Your task to perform on an android device: toggle location history Image 0: 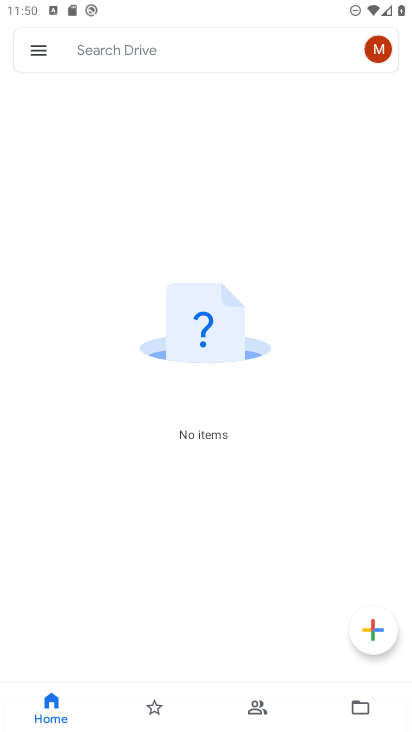
Step 0: press home button
Your task to perform on an android device: toggle location history Image 1: 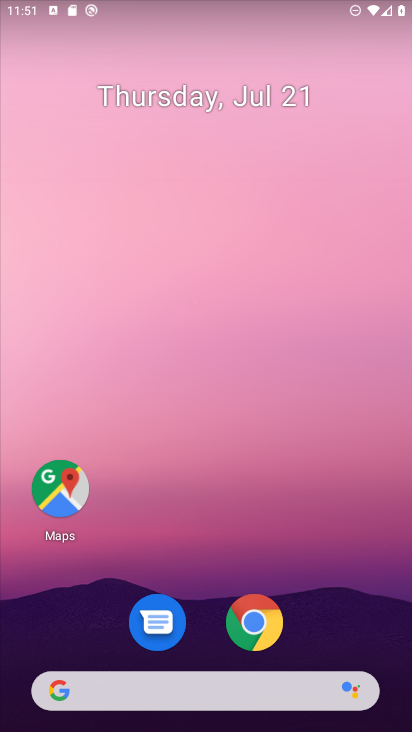
Step 1: drag from (84, 713) to (172, 259)
Your task to perform on an android device: toggle location history Image 2: 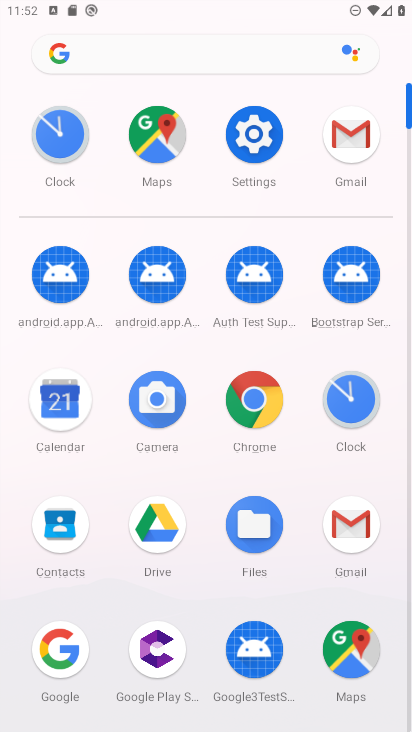
Step 2: click (159, 133)
Your task to perform on an android device: toggle location history Image 3: 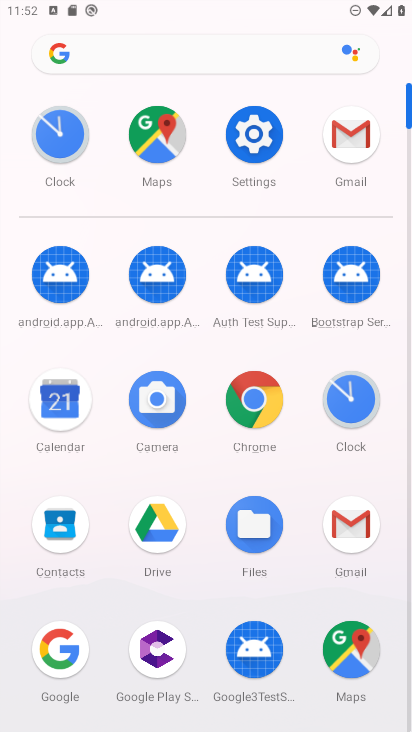
Step 3: click (159, 133)
Your task to perform on an android device: toggle location history Image 4: 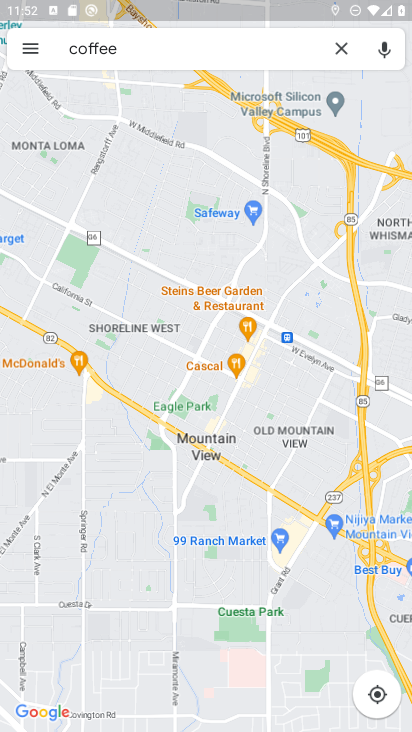
Step 4: click (25, 52)
Your task to perform on an android device: toggle location history Image 5: 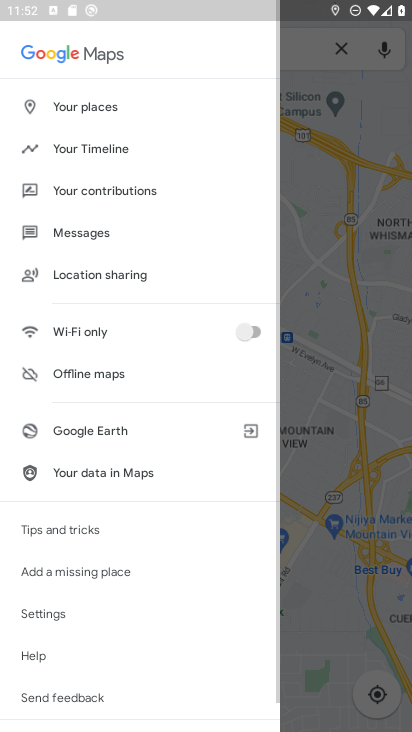
Step 5: click (68, 151)
Your task to perform on an android device: toggle location history Image 6: 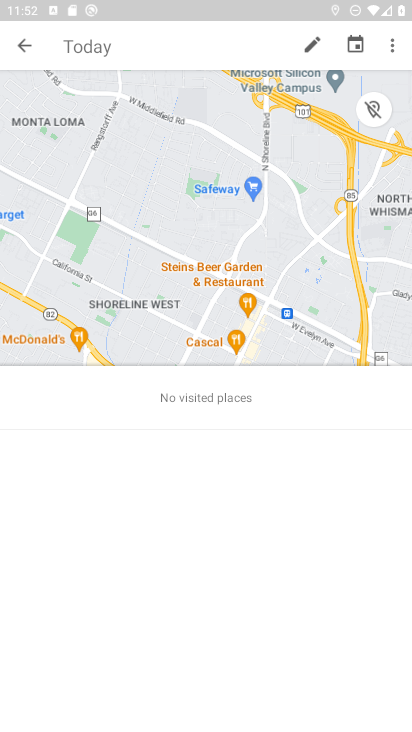
Step 6: click (390, 42)
Your task to perform on an android device: toggle location history Image 7: 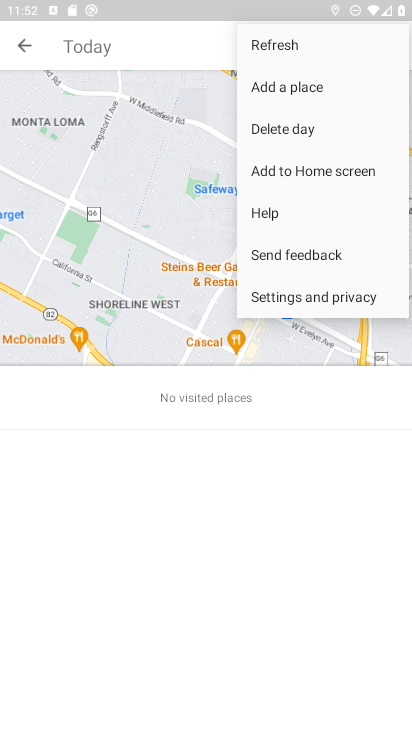
Step 7: click (320, 302)
Your task to perform on an android device: toggle location history Image 8: 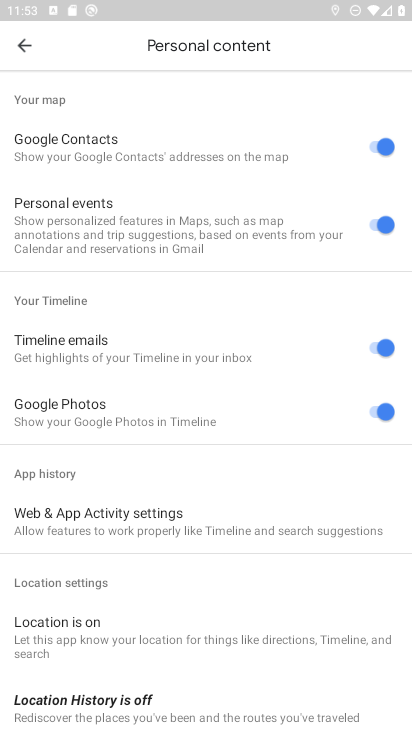
Step 8: drag from (181, 667) to (231, 107)
Your task to perform on an android device: toggle location history Image 9: 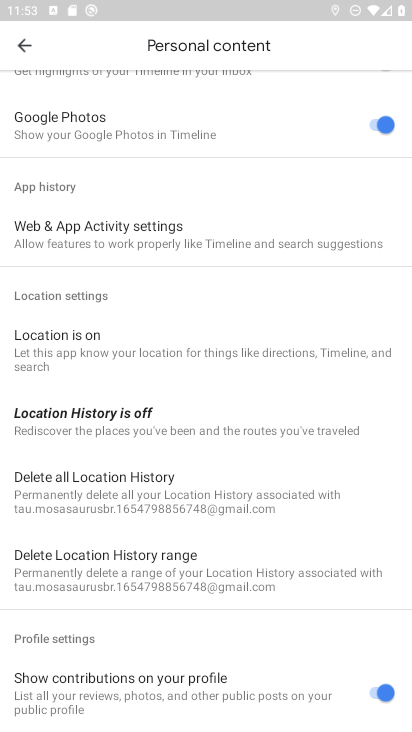
Step 9: click (231, 434)
Your task to perform on an android device: toggle location history Image 10: 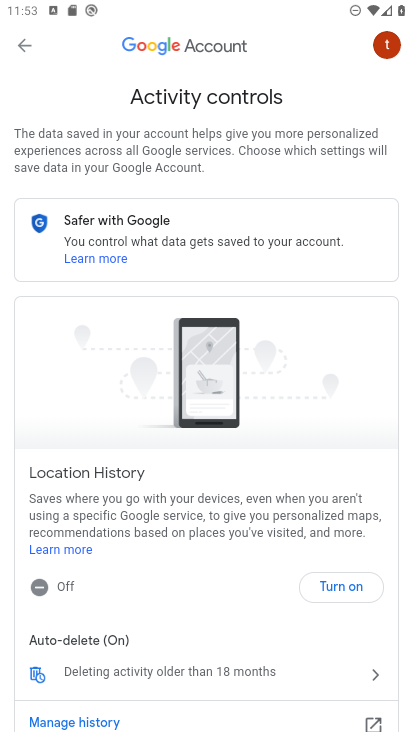
Step 10: click (334, 577)
Your task to perform on an android device: toggle location history Image 11: 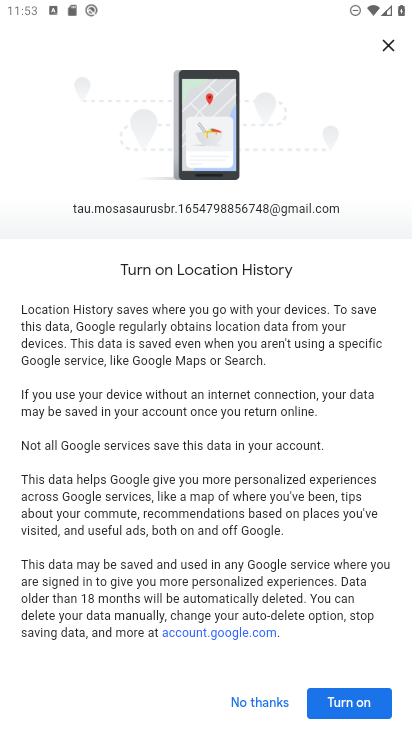
Step 11: click (333, 707)
Your task to perform on an android device: toggle location history Image 12: 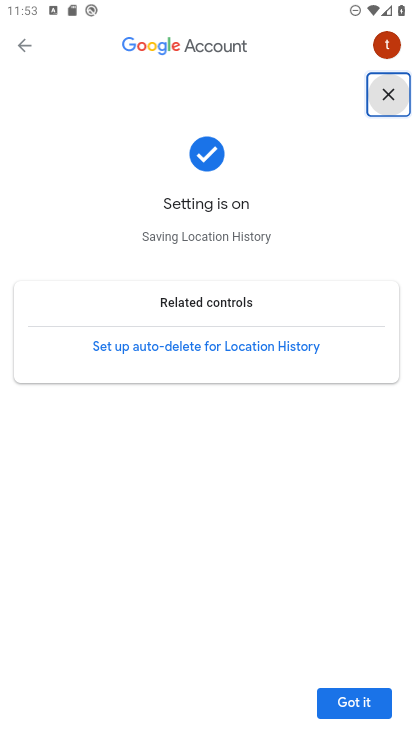
Step 12: click (361, 700)
Your task to perform on an android device: toggle location history Image 13: 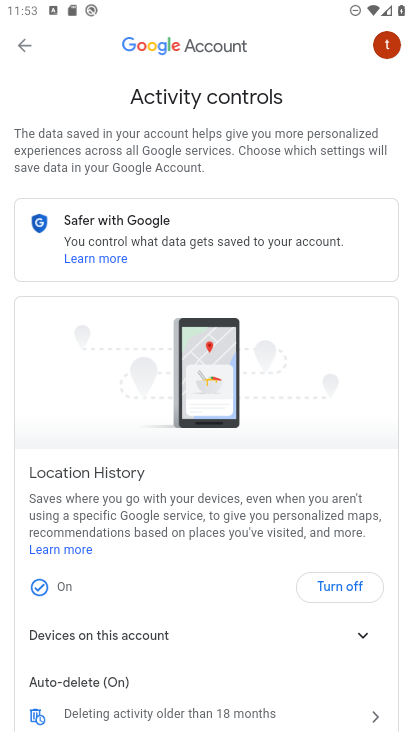
Step 13: task complete